Your task to perform on an android device: Go to accessibility settings Image 0: 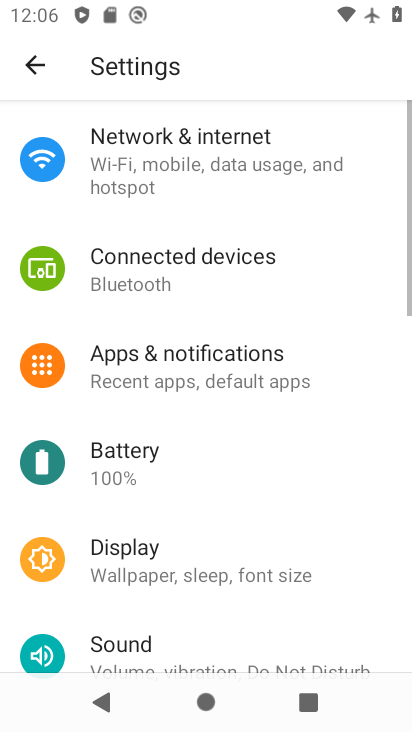
Step 0: press home button
Your task to perform on an android device: Go to accessibility settings Image 1: 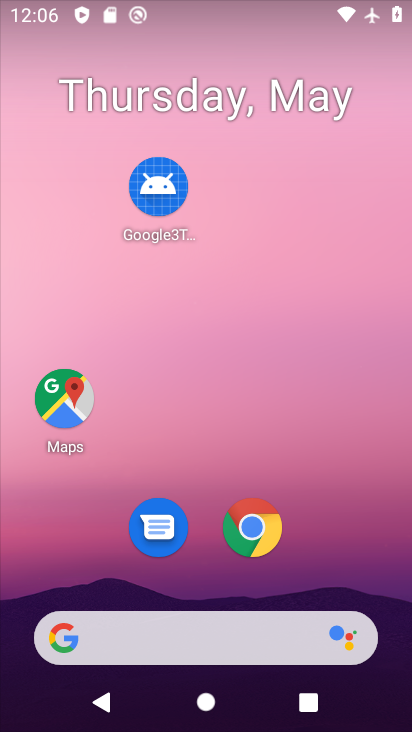
Step 1: drag from (229, 260) to (243, 91)
Your task to perform on an android device: Go to accessibility settings Image 2: 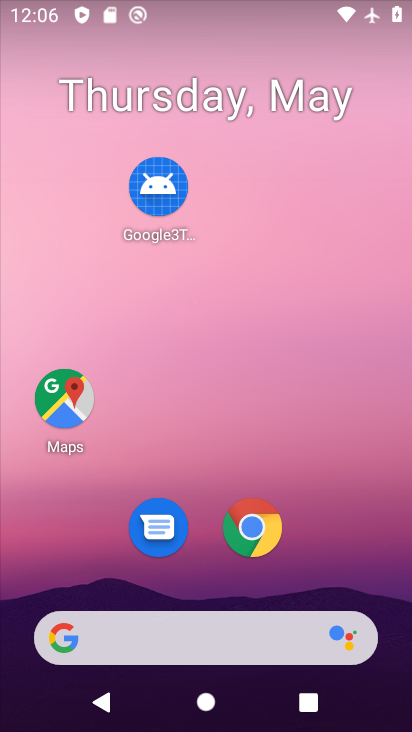
Step 2: drag from (206, 588) to (250, 95)
Your task to perform on an android device: Go to accessibility settings Image 3: 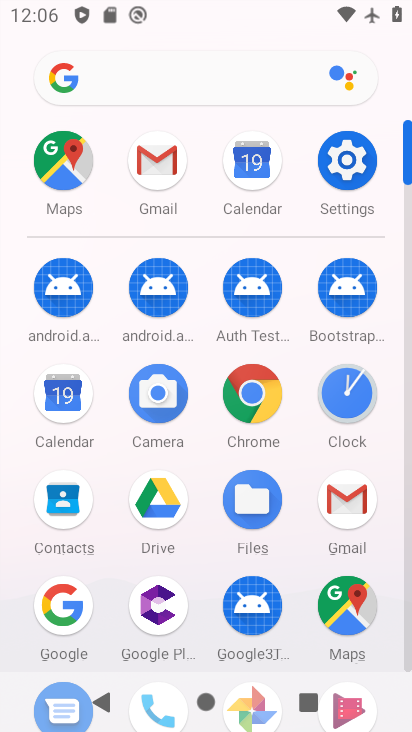
Step 3: click (350, 152)
Your task to perform on an android device: Go to accessibility settings Image 4: 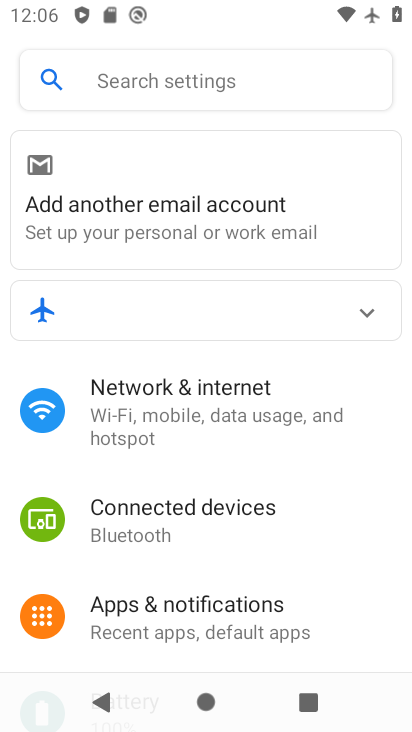
Step 4: drag from (212, 627) to (266, 154)
Your task to perform on an android device: Go to accessibility settings Image 5: 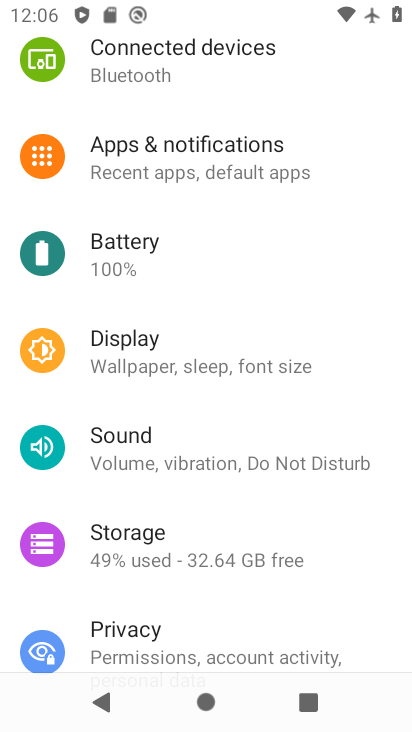
Step 5: drag from (212, 642) to (244, 143)
Your task to perform on an android device: Go to accessibility settings Image 6: 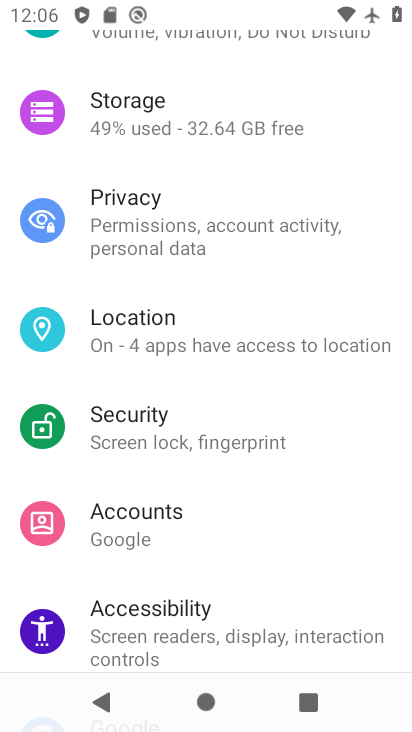
Step 6: click (196, 628)
Your task to perform on an android device: Go to accessibility settings Image 7: 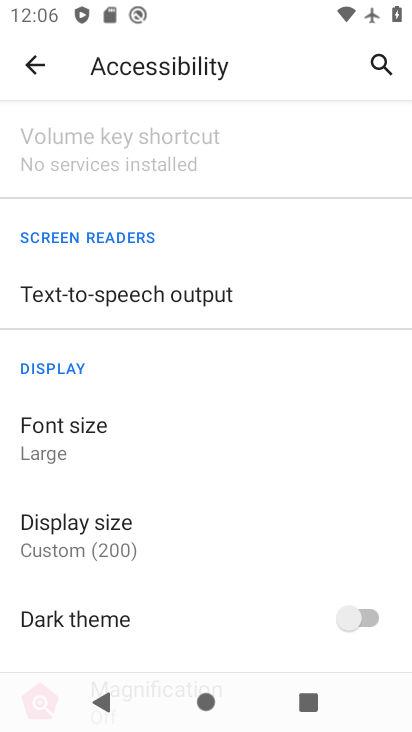
Step 7: drag from (176, 476) to (195, 196)
Your task to perform on an android device: Go to accessibility settings Image 8: 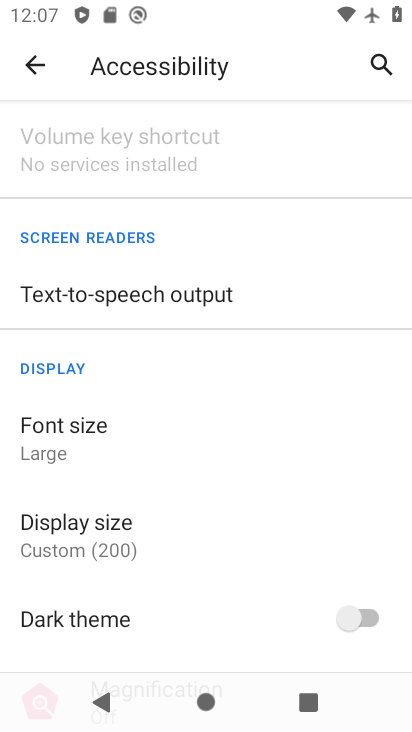
Step 8: drag from (152, 571) to (217, 113)
Your task to perform on an android device: Go to accessibility settings Image 9: 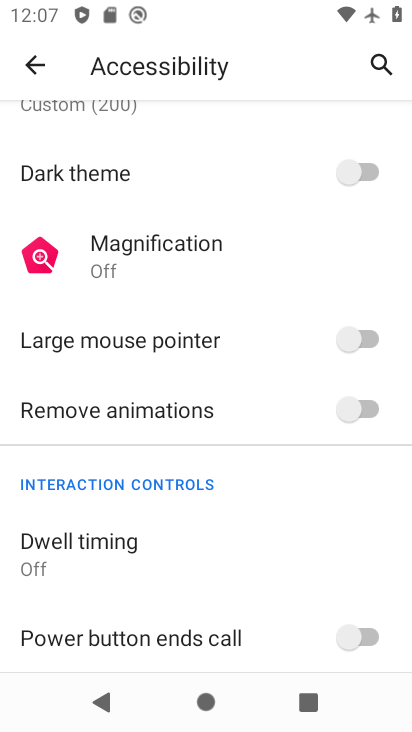
Step 9: drag from (181, 601) to (218, 224)
Your task to perform on an android device: Go to accessibility settings Image 10: 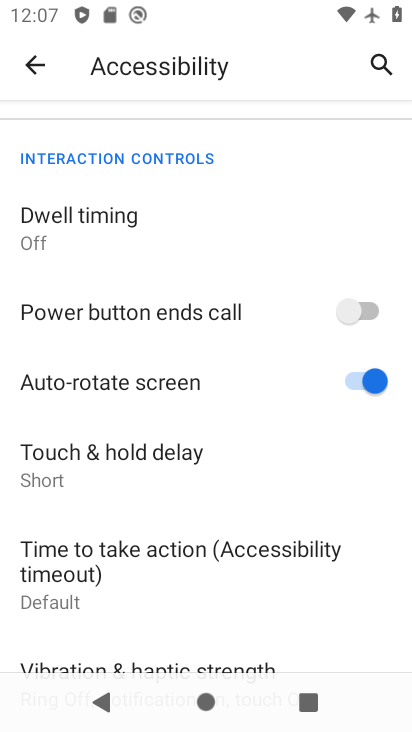
Step 10: click (230, 76)
Your task to perform on an android device: Go to accessibility settings Image 11: 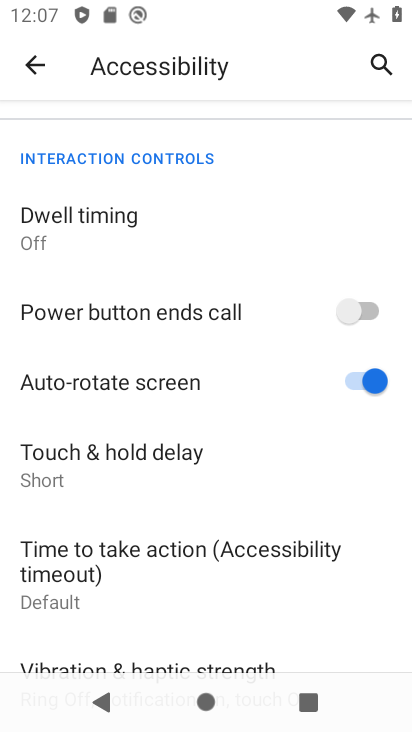
Step 11: task complete